Your task to perform on an android device: Open the map Image 0: 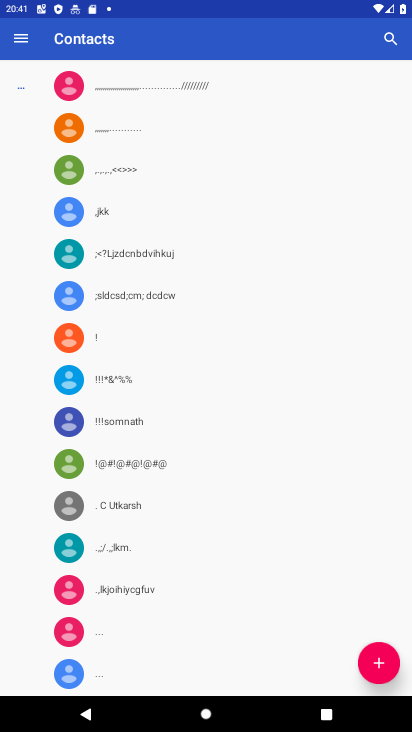
Step 0: press home button
Your task to perform on an android device: Open the map Image 1: 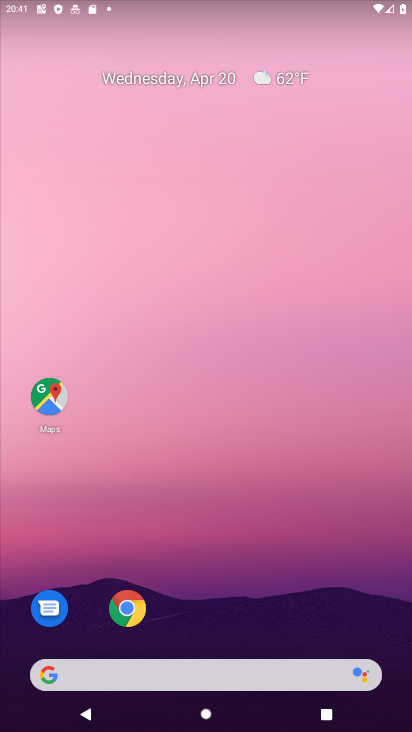
Step 1: drag from (322, 595) to (327, 29)
Your task to perform on an android device: Open the map Image 2: 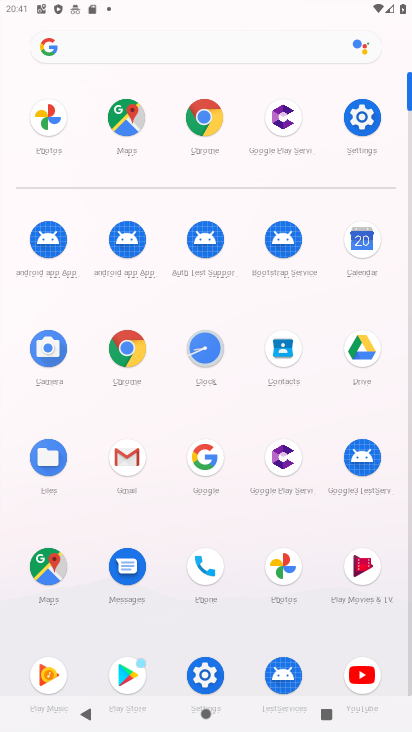
Step 2: click (132, 124)
Your task to perform on an android device: Open the map Image 3: 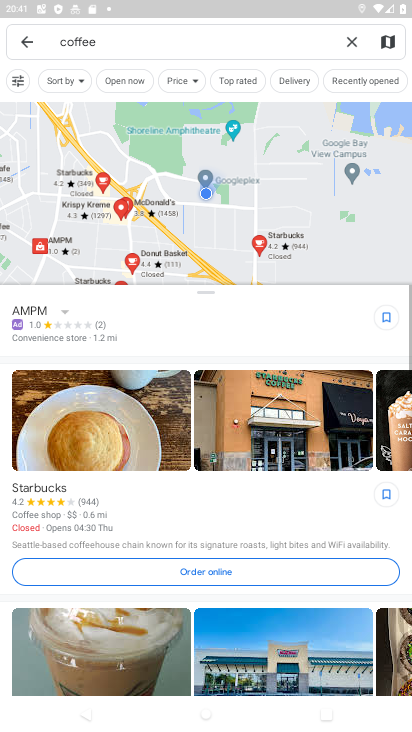
Step 3: task complete